Your task to perform on an android device: Go to Amazon Image 0: 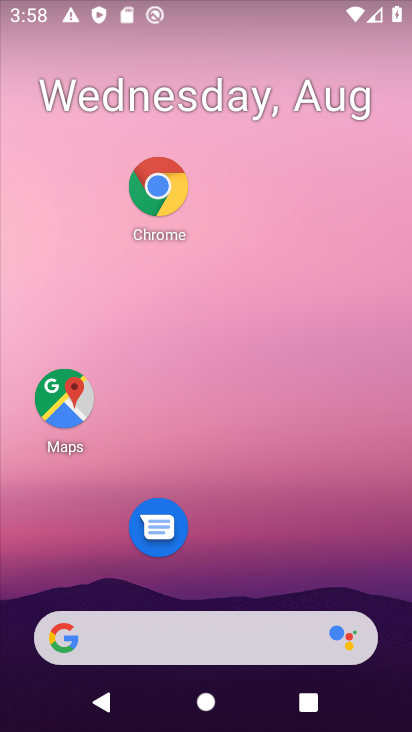
Step 0: click (167, 641)
Your task to perform on an android device: Go to Amazon Image 1: 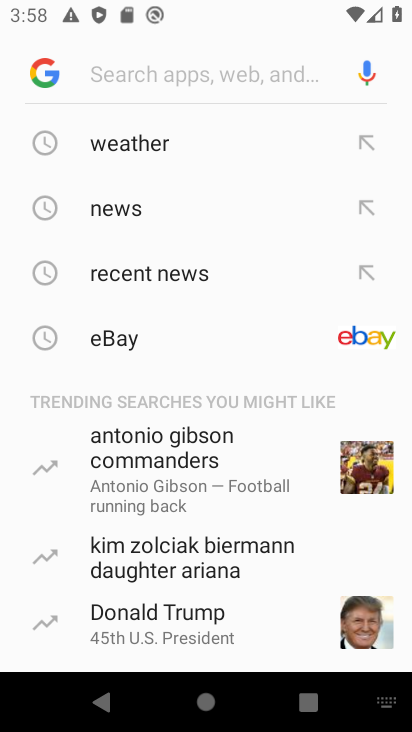
Step 1: click (43, 64)
Your task to perform on an android device: Go to Amazon Image 2: 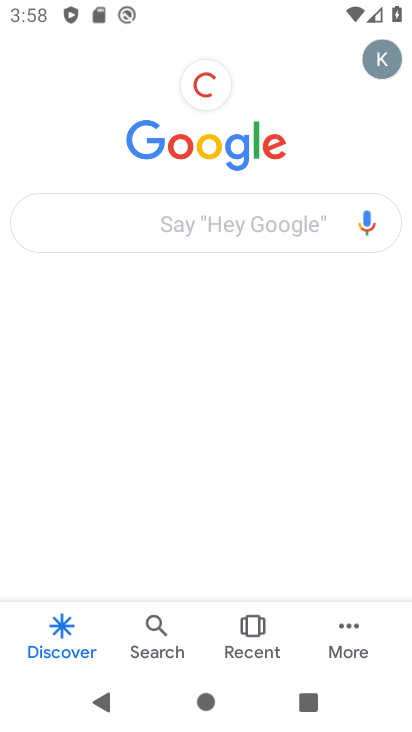
Step 2: press home button
Your task to perform on an android device: Go to Amazon Image 3: 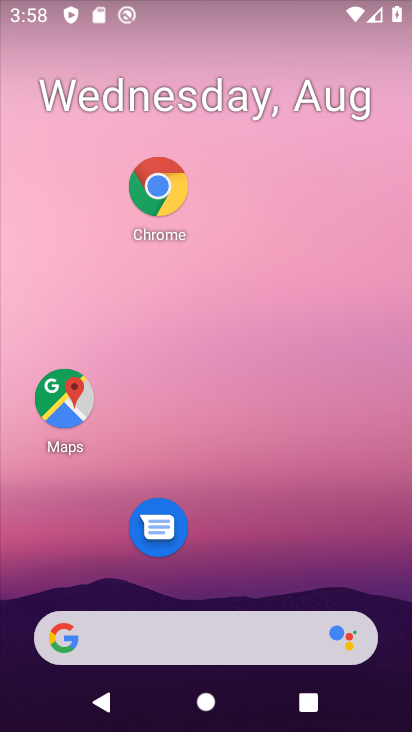
Step 3: click (154, 193)
Your task to perform on an android device: Go to Amazon Image 4: 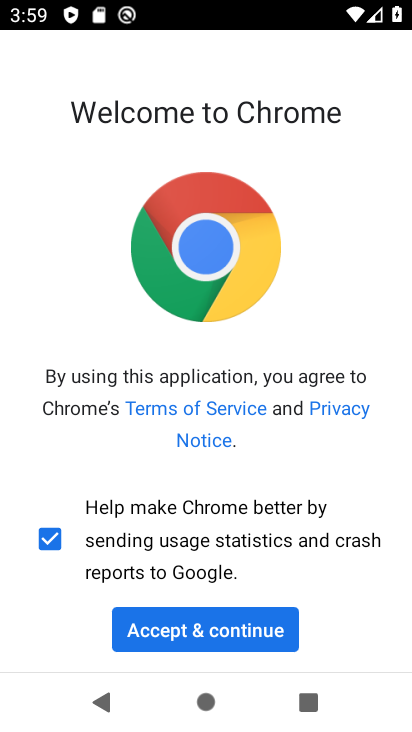
Step 4: click (242, 623)
Your task to perform on an android device: Go to Amazon Image 5: 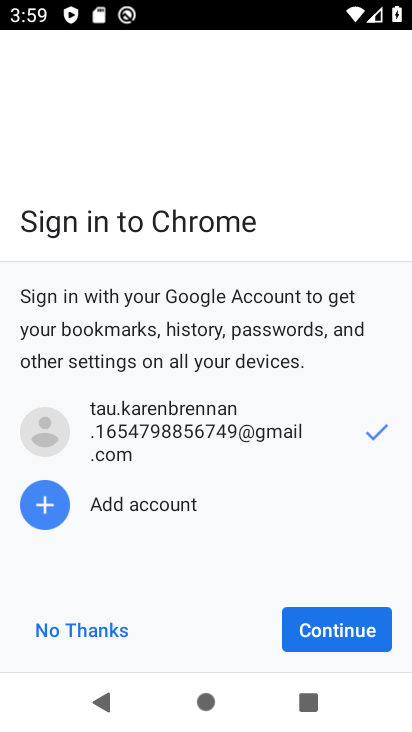
Step 5: click (242, 623)
Your task to perform on an android device: Go to Amazon Image 6: 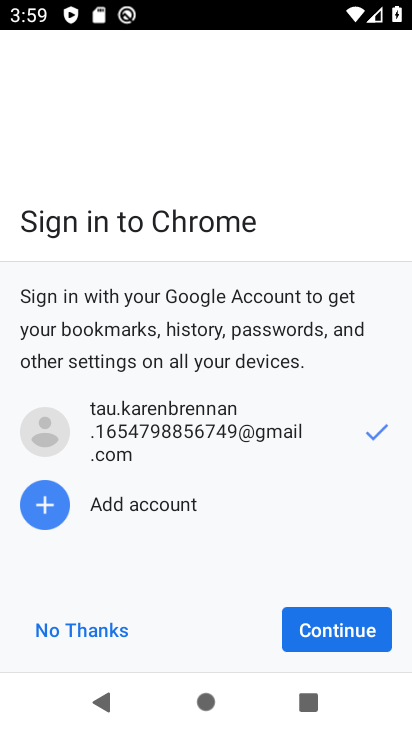
Step 6: click (326, 636)
Your task to perform on an android device: Go to Amazon Image 7: 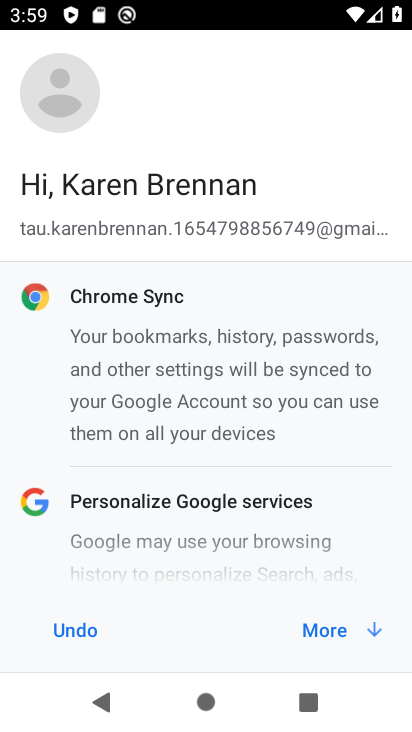
Step 7: click (326, 636)
Your task to perform on an android device: Go to Amazon Image 8: 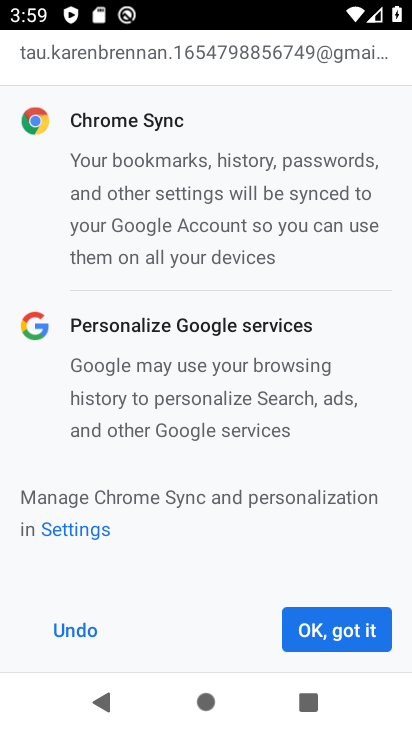
Step 8: click (326, 636)
Your task to perform on an android device: Go to Amazon Image 9: 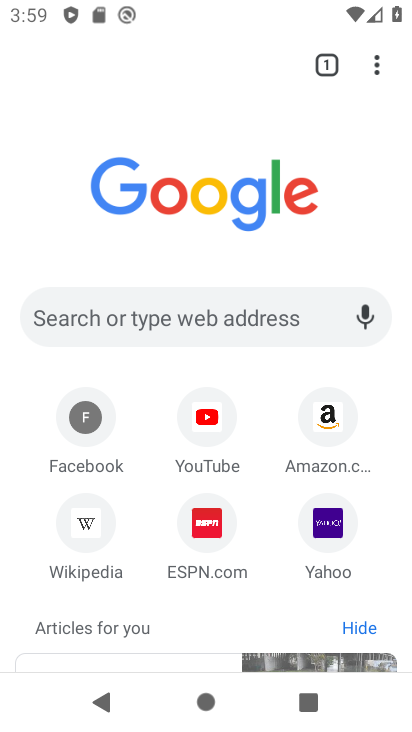
Step 9: click (336, 417)
Your task to perform on an android device: Go to Amazon Image 10: 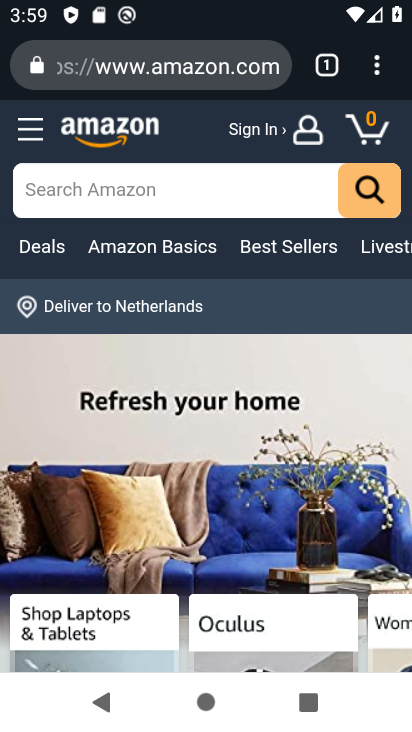
Step 10: task complete